Your task to perform on an android device: check battery use Image 0: 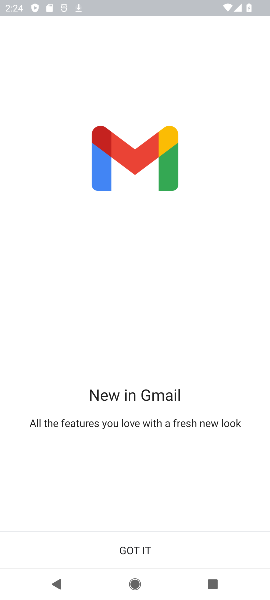
Step 0: press home button
Your task to perform on an android device: check battery use Image 1: 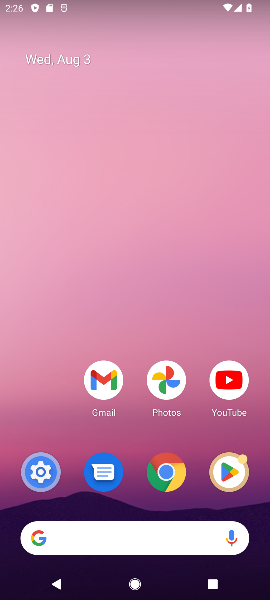
Step 1: drag from (203, 508) to (159, 201)
Your task to perform on an android device: check battery use Image 2: 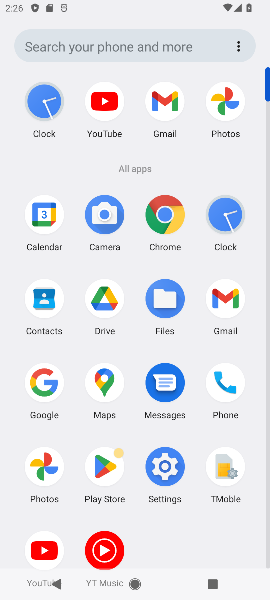
Step 2: click (160, 490)
Your task to perform on an android device: check battery use Image 3: 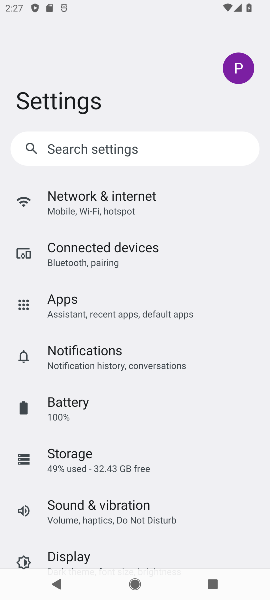
Step 3: click (94, 404)
Your task to perform on an android device: check battery use Image 4: 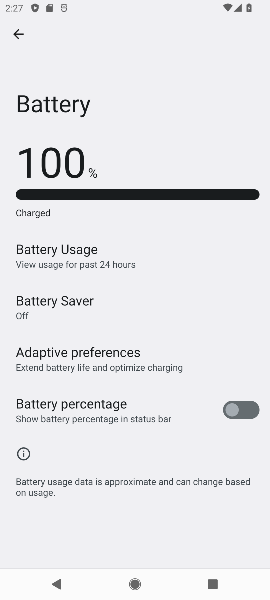
Step 4: click (56, 164)
Your task to perform on an android device: check battery use Image 5: 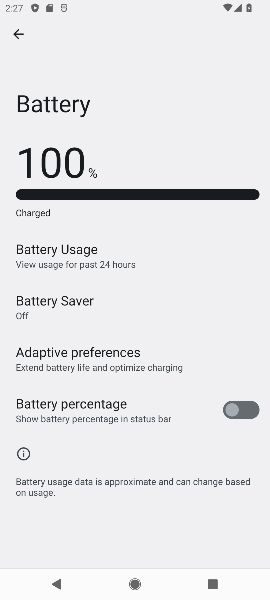
Step 5: click (155, 265)
Your task to perform on an android device: check battery use Image 6: 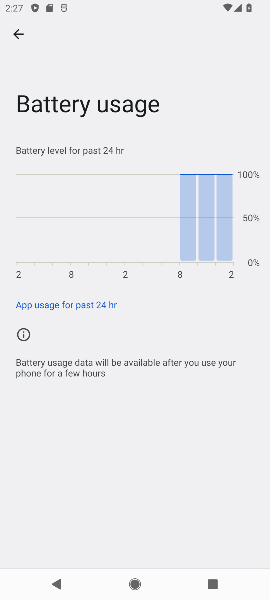
Step 6: task complete